Your task to perform on an android device: turn off data saver in the chrome app Image 0: 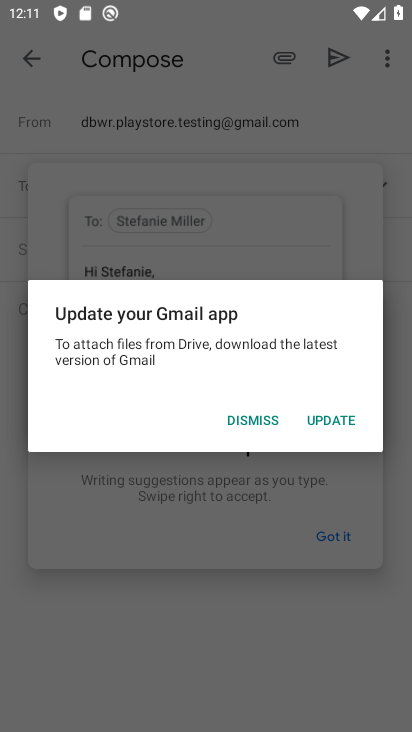
Step 0: press home button
Your task to perform on an android device: turn off data saver in the chrome app Image 1: 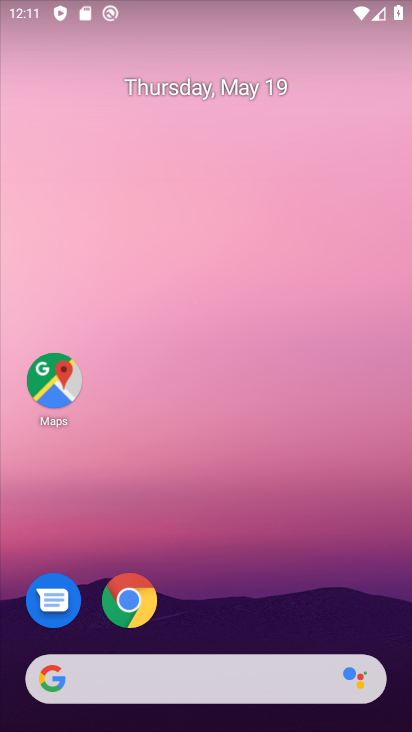
Step 1: click (131, 599)
Your task to perform on an android device: turn off data saver in the chrome app Image 2: 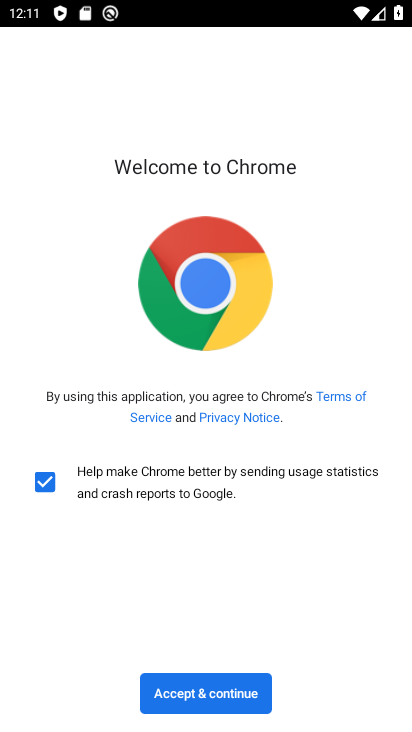
Step 2: click (189, 686)
Your task to perform on an android device: turn off data saver in the chrome app Image 3: 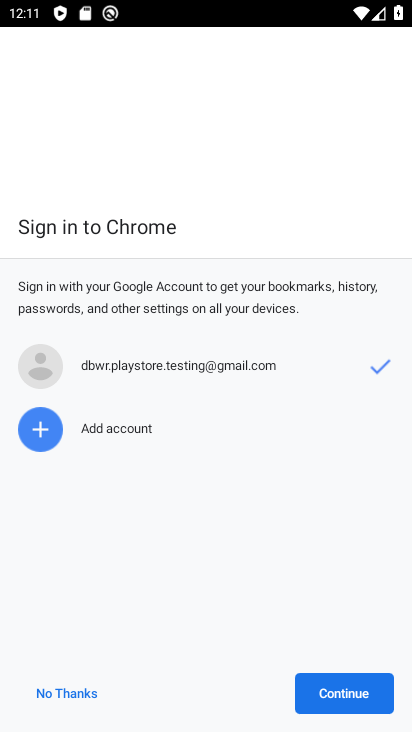
Step 3: click (331, 688)
Your task to perform on an android device: turn off data saver in the chrome app Image 4: 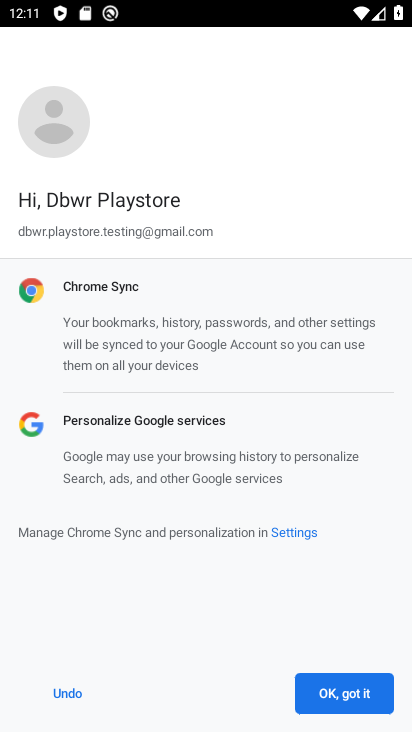
Step 4: click (339, 688)
Your task to perform on an android device: turn off data saver in the chrome app Image 5: 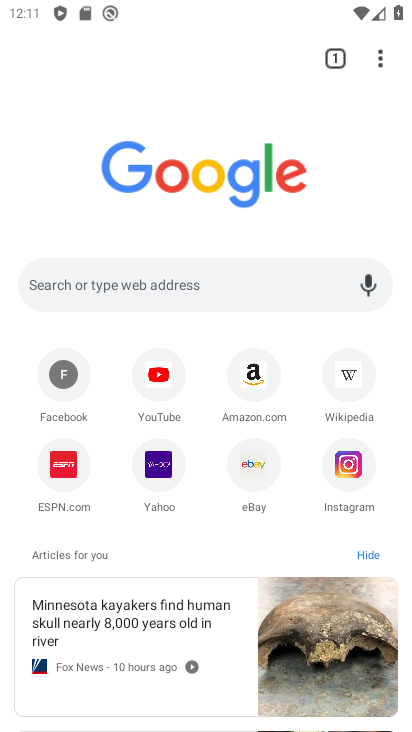
Step 5: click (377, 57)
Your task to perform on an android device: turn off data saver in the chrome app Image 6: 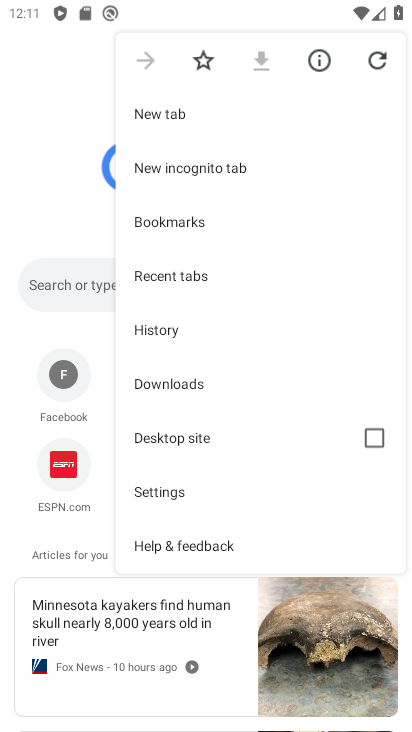
Step 6: click (176, 489)
Your task to perform on an android device: turn off data saver in the chrome app Image 7: 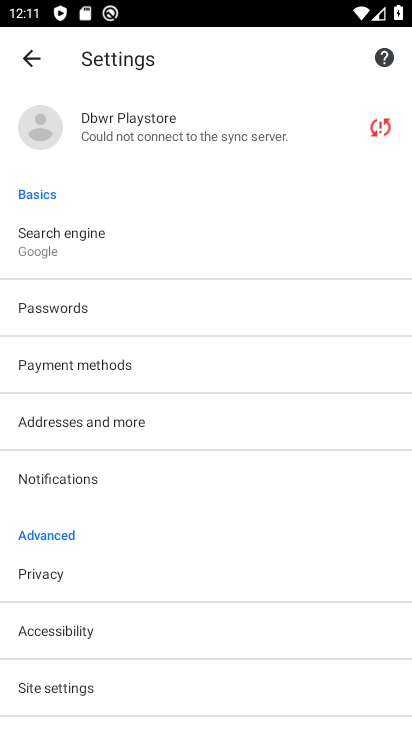
Step 7: drag from (238, 476) to (194, 206)
Your task to perform on an android device: turn off data saver in the chrome app Image 8: 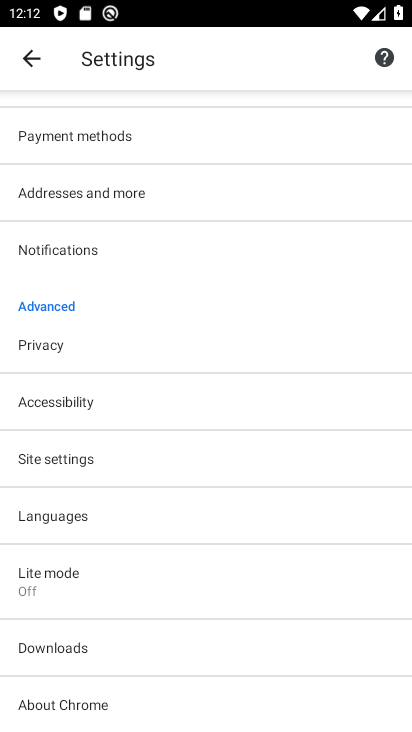
Step 8: click (48, 567)
Your task to perform on an android device: turn off data saver in the chrome app Image 9: 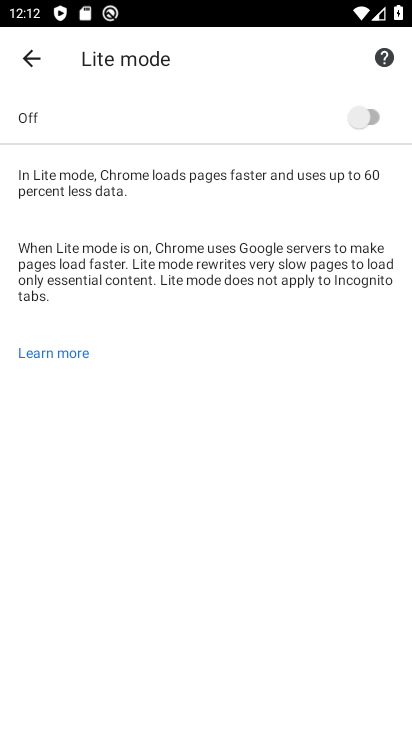
Step 9: task complete